Your task to perform on an android device: toggle pop-ups in chrome Image 0: 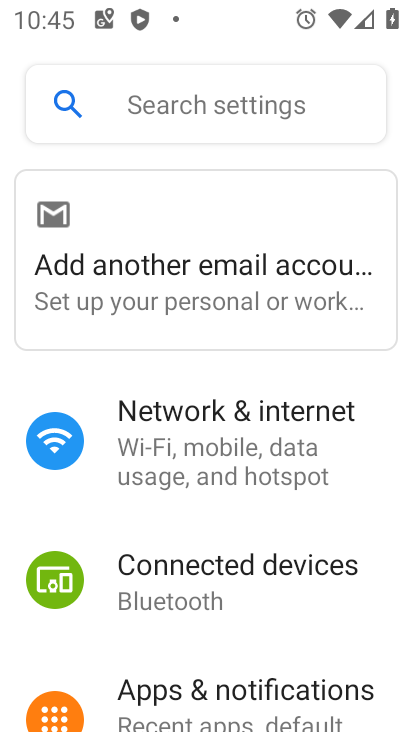
Step 0: press home button
Your task to perform on an android device: toggle pop-ups in chrome Image 1: 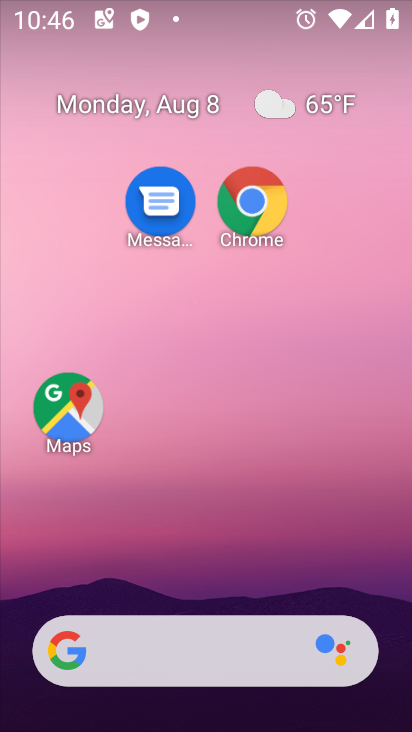
Step 1: click (254, 200)
Your task to perform on an android device: toggle pop-ups in chrome Image 2: 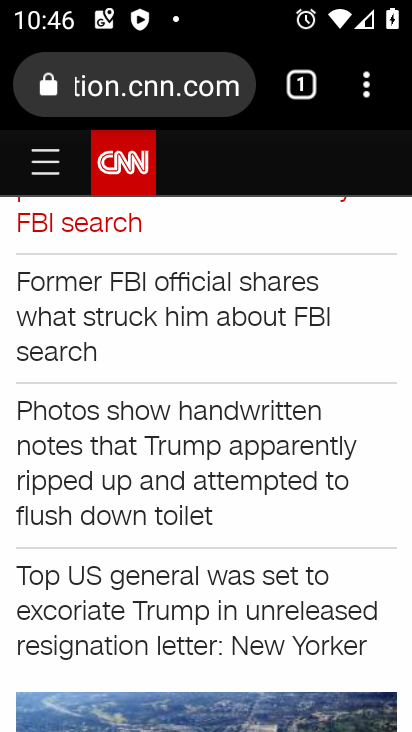
Step 2: click (360, 84)
Your task to perform on an android device: toggle pop-ups in chrome Image 3: 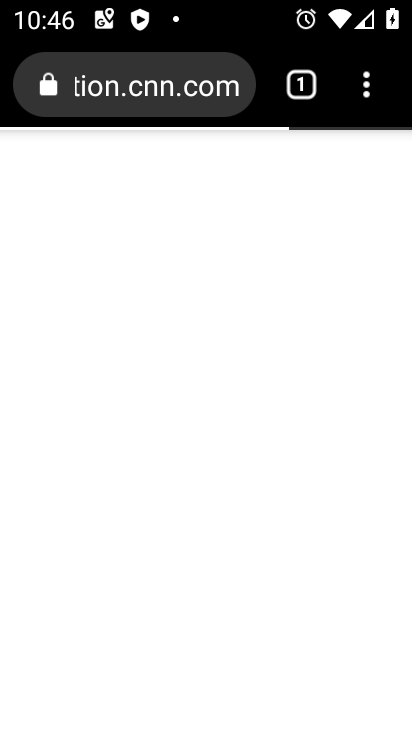
Step 3: click (362, 87)
Your task to perform on an android device: toggle pop-ups in chrome Image 4: 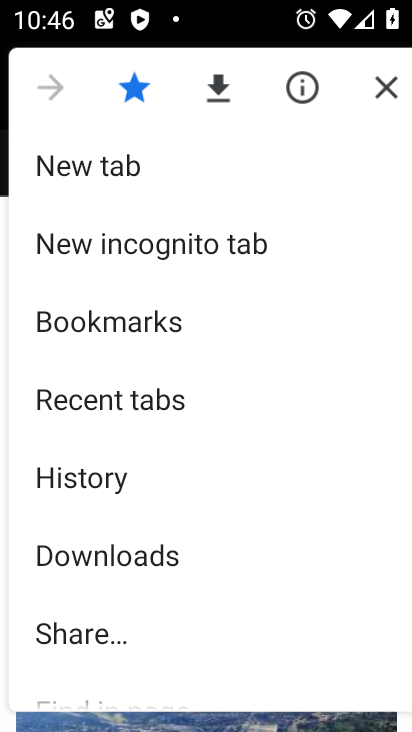
Step 4: drag from (174, 643) to (207, 127)
Your task to perform on an android device: toggle pop-ups in chrome Image 5: 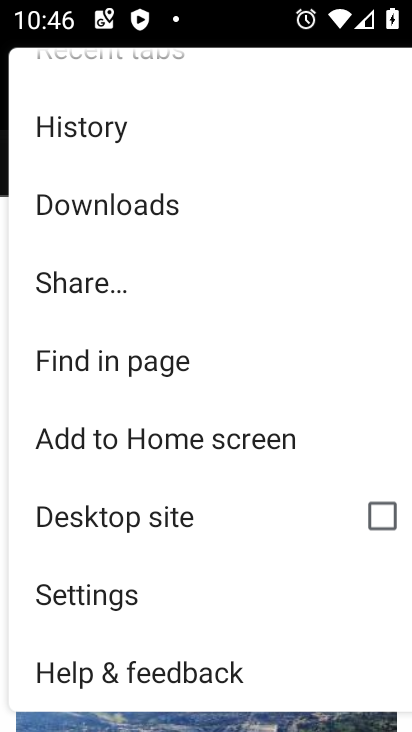
Step 5: click (154, 596)
Your task to perform on an android device: toggle pop-ups in chrome Image 6: 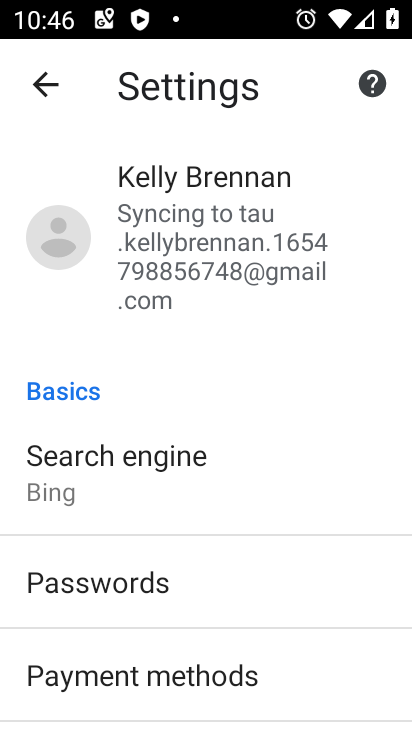
Step 6: drag from (264, 665) to (256, 152)
Your task to perform on an android device: toggle pop-ups in chrome Image 7: 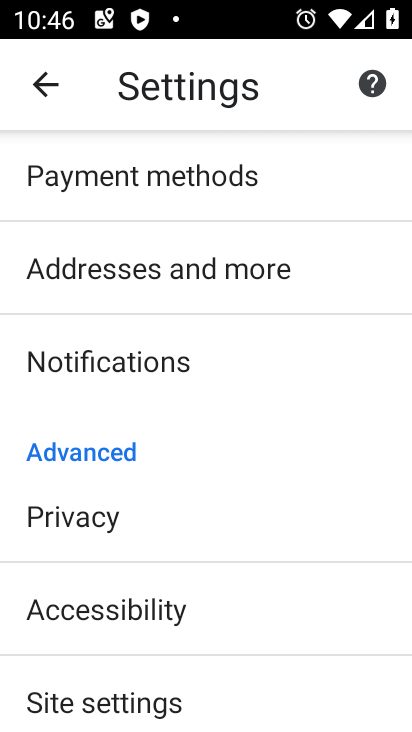
Step 7: click (205, 692)
Your task to perform on an android device: toggle pop-ups in chrome Image 8: 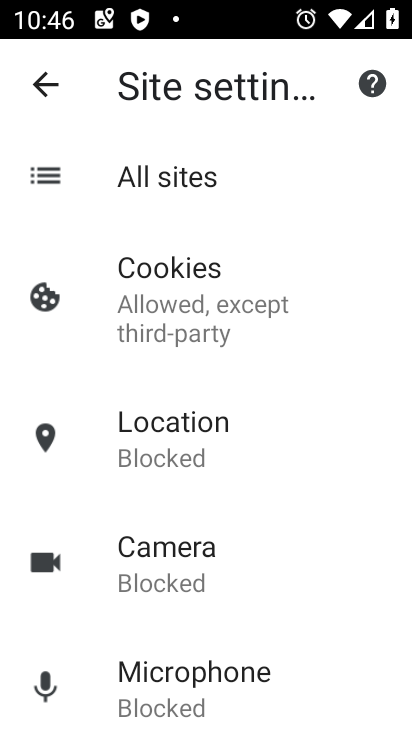
Step 8: drag from (296, 704) to (311, 129)
Your task to perform on an android device: toggle pop-ups in chrome Image 9: 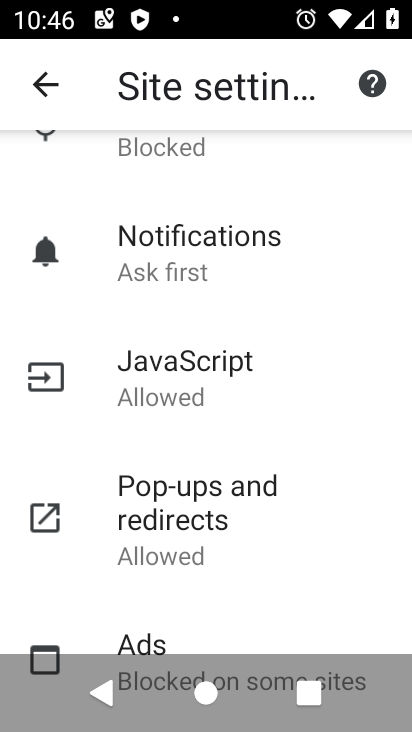
Step 9: click (240, 504)
Your task to perform on an android device: toggle pop-ups in chrome Image 10: 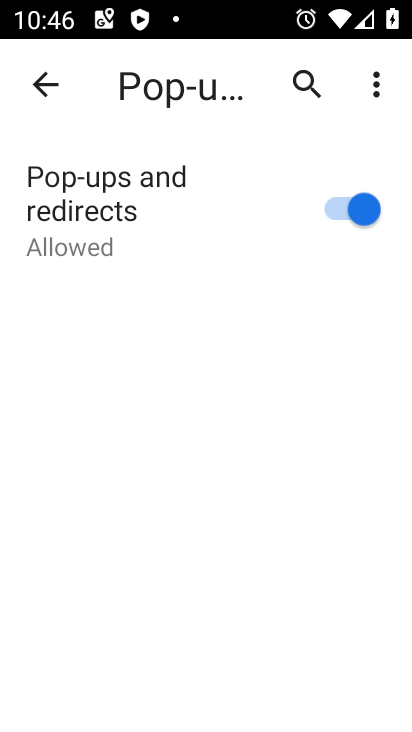
Step 10: click (349, 210)
Your task to perform on an android device: toggle pop-ups in chrome Image 11: 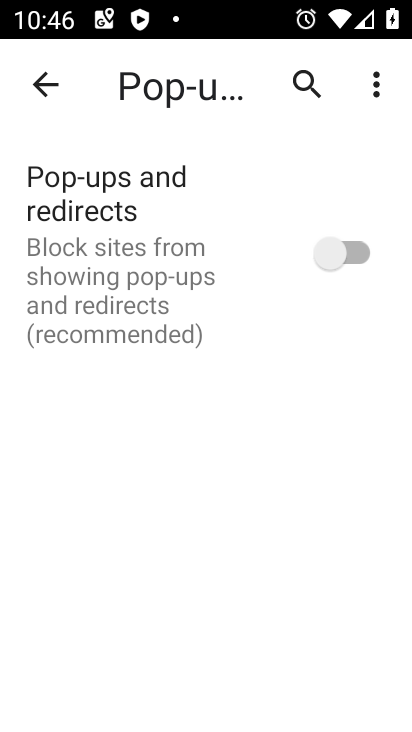
Step 11: task complete